Your task to perform on an android device: Open maps Image 0: 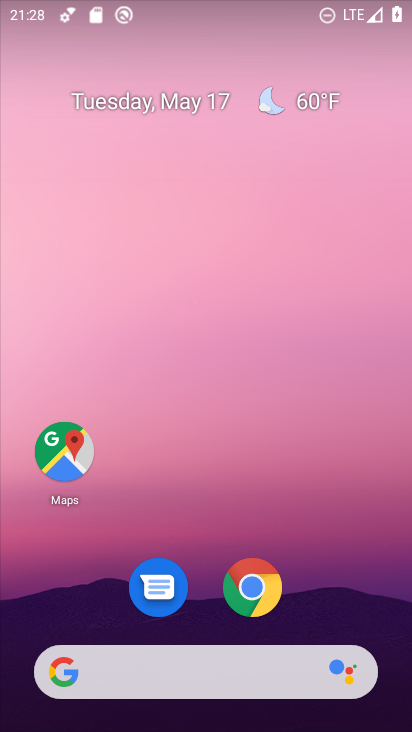
Step 0: drag from (242, 520) to (171, 111)
Your task to perform on an android device: Open maps Image 1: 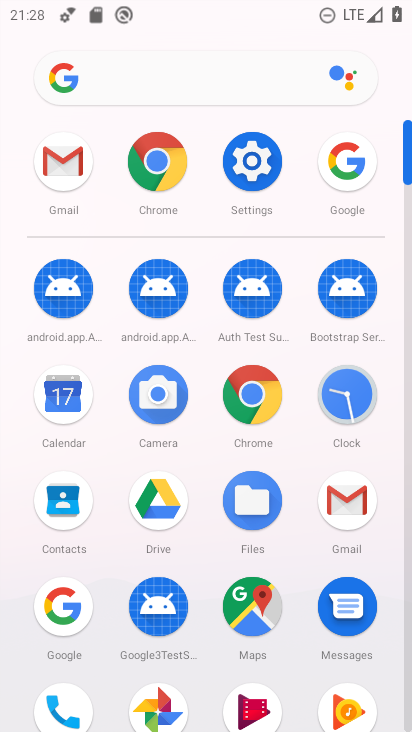
Step 1: click (267, 618)
Your task to perform on an android device: Open maps Image 2: 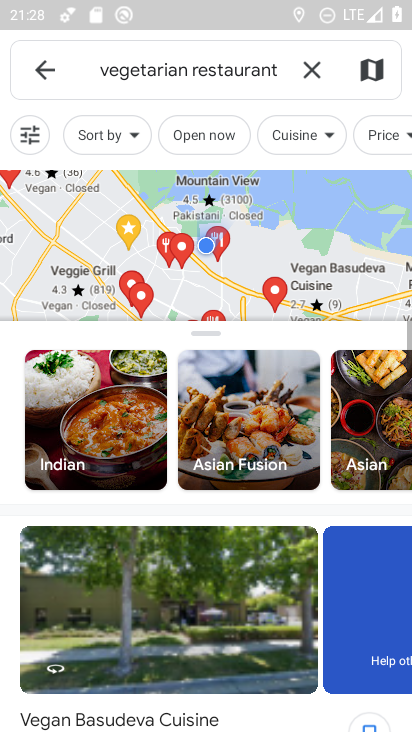
Step 2: task complete